Your task to perform on an android device: show emergency info Image 0: 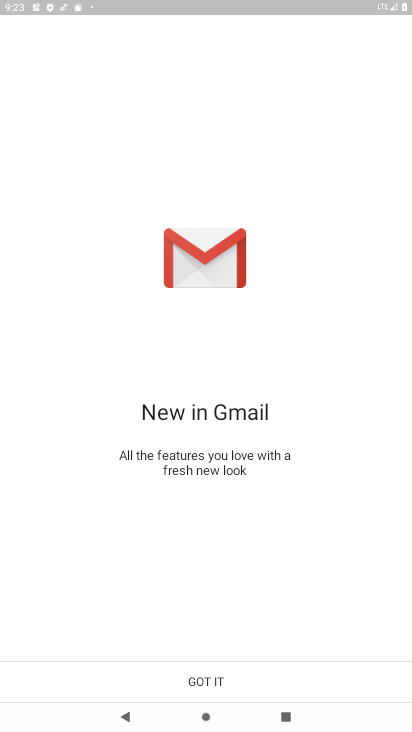
Step 0: press home button
Your task to perform on an android device: show emergency info Image 1: 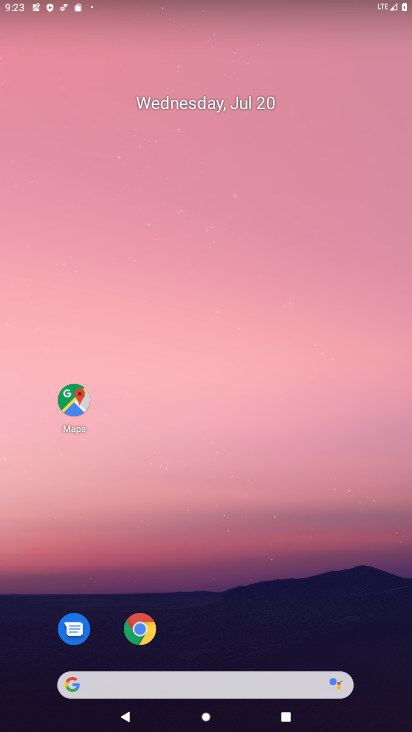
Step 1: drag from (362, 629) to (332, 316)
Your task to perform on an android device: show emergency info Image 2: 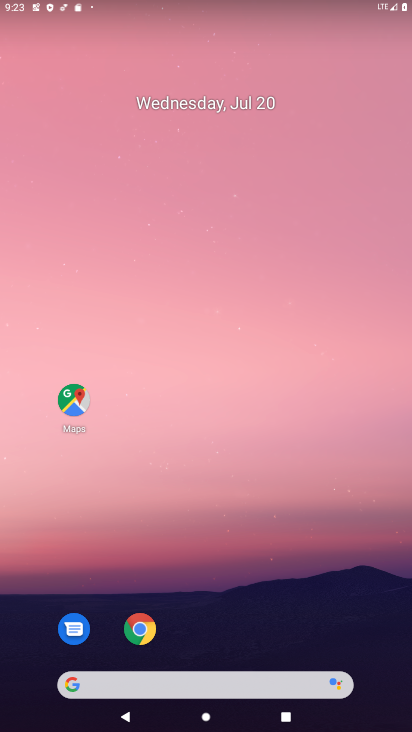
Step 2: drag from (288, 612) to (338, 44)
Your task to perform on an android device: show emergency info Image 3: 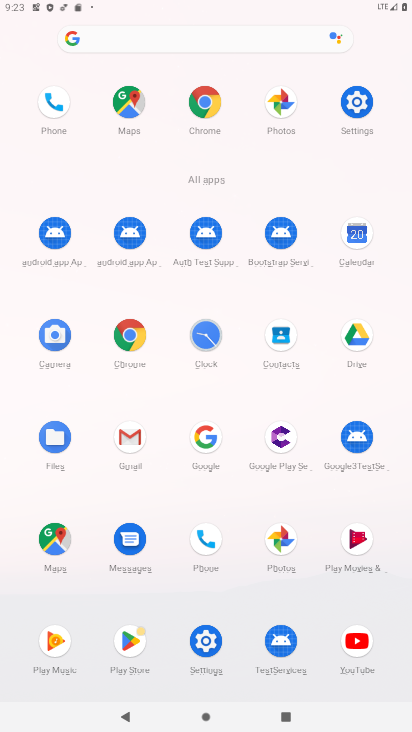
Step 3: click (382, 121)
Your task to perform on an android device: show emergency info Image 4: 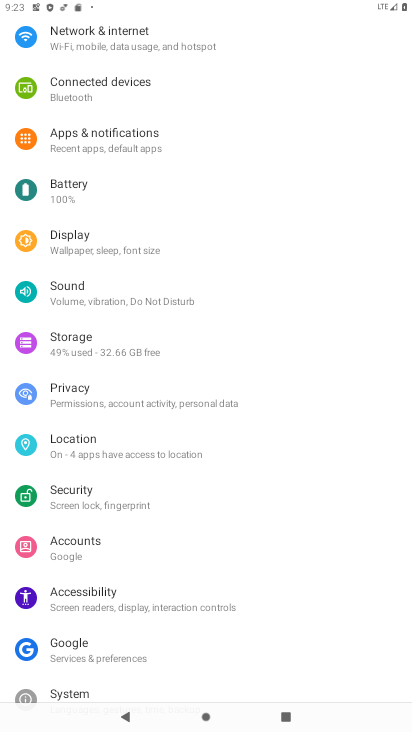
Step 4: drag from (169, 649) to (213, 290)
Your task to perform on an android device: show emergency info Image 5: 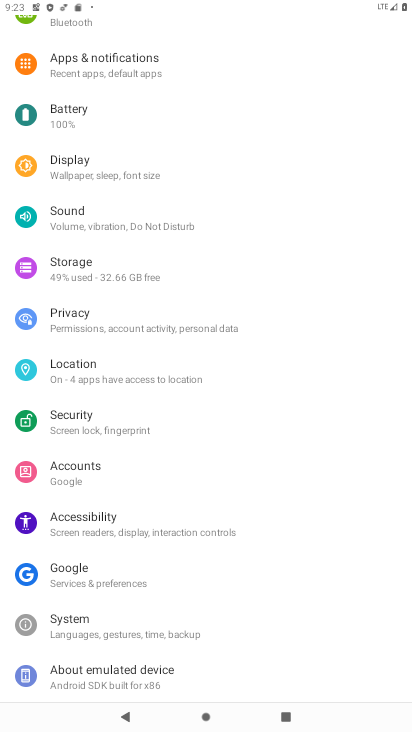
Step 5: click (148, 670)
Your task to perform on an android device: show emergency info Image 6: 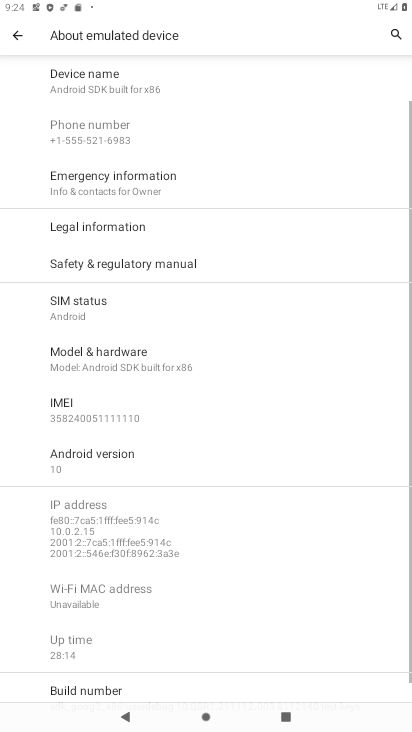
Step 6: click (118, 190)
Your task to perform on an android device: show emergency info Image 7: 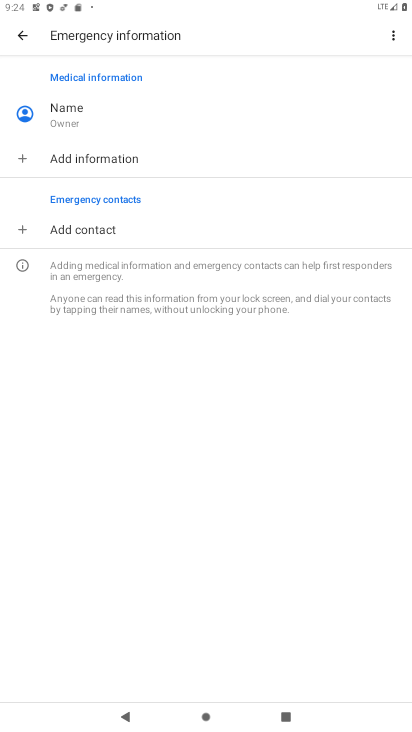
Step 7: task complete